Your task to perform on an android device: check battery use Image 0: 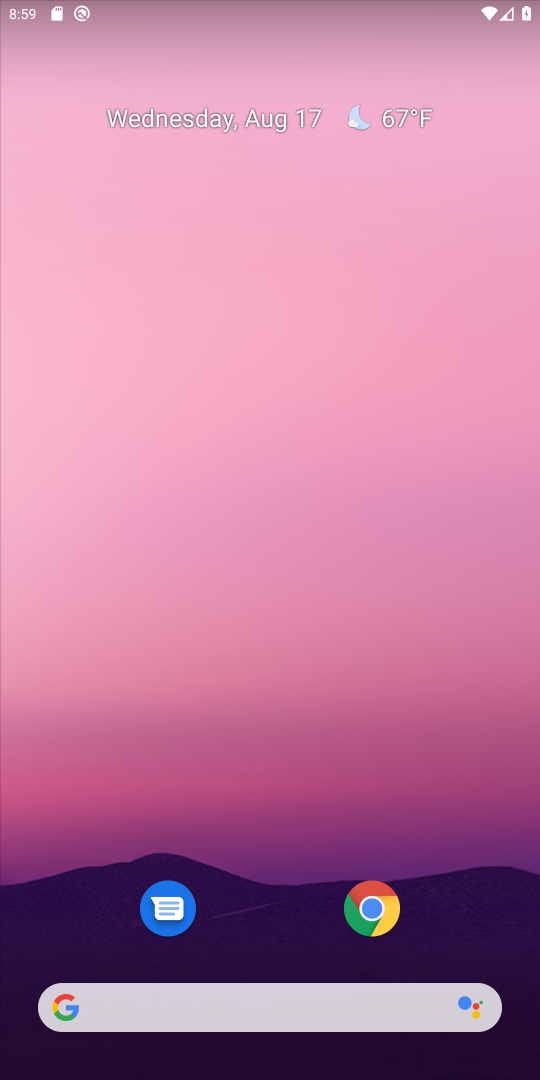
Step 0: drag from (248, 943) to (338, 93)
Your task to perform on an android device: check battery use Image 1: 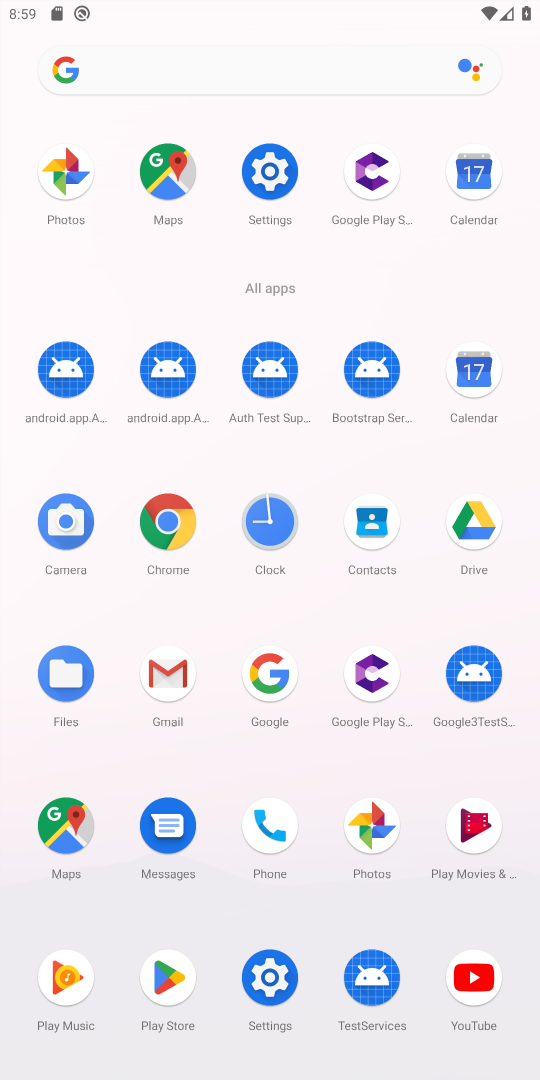
Step 1: click (257, 971)
Your task to perform on an android device: check battery use Image 2: 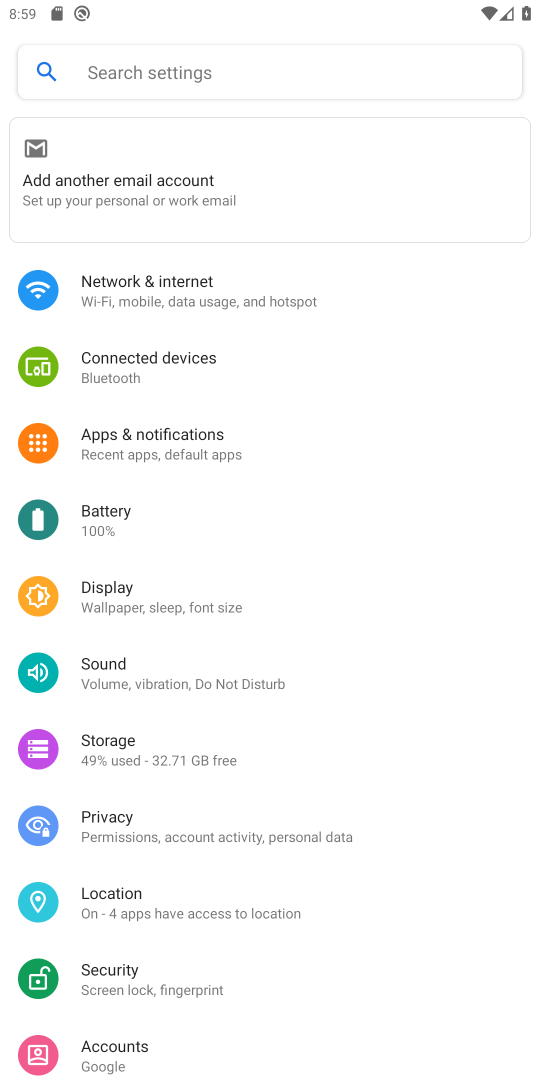
Step 2: click (111, 515)
Your task to perform on an android device: check battery use Image 3: 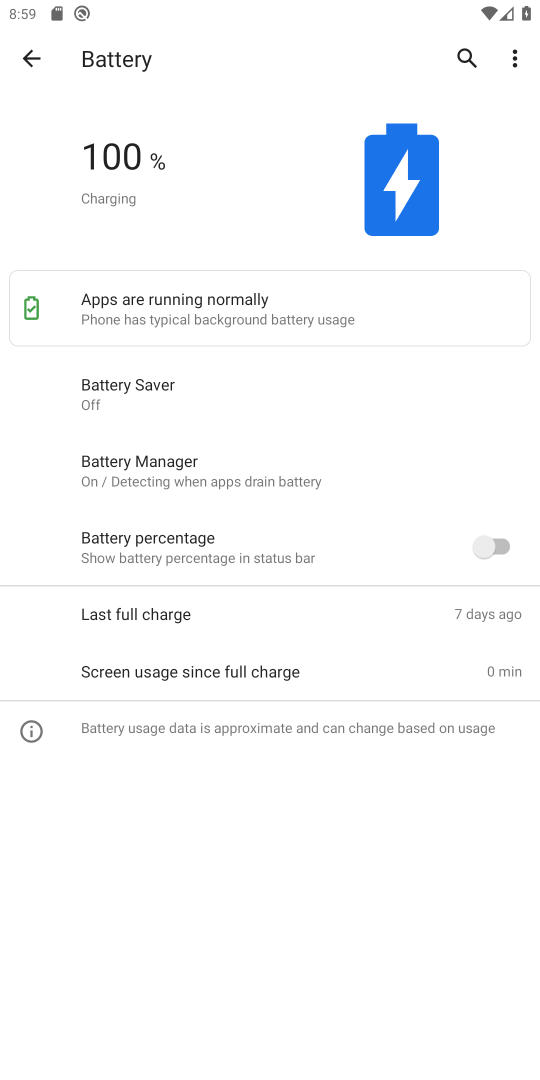
Step 3: task complete